Your task to perform on an android device: change timer sound Image 0: 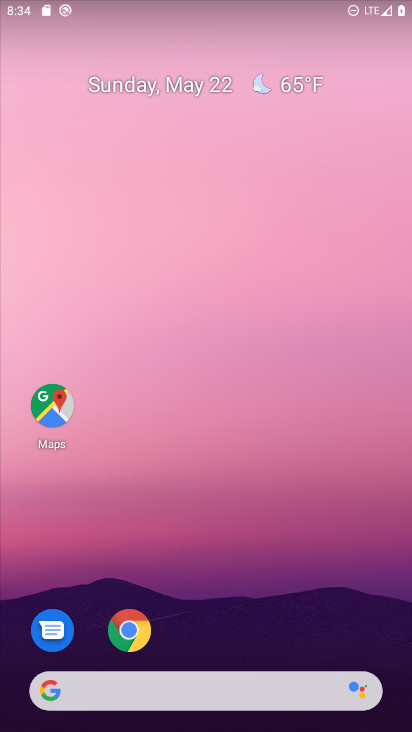
Step 0: press home button
Your task to perform on an android device: change timer sound Image 1: 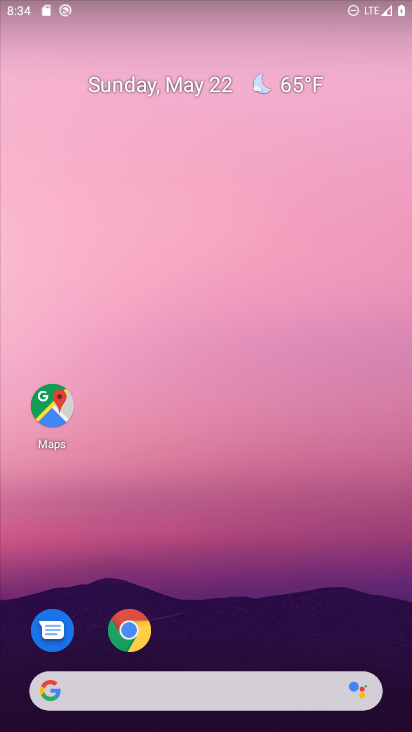
Step 1: drag from (181, 613) to (307, 274)
Your task to perform on an android device: change timer sound Image 2: 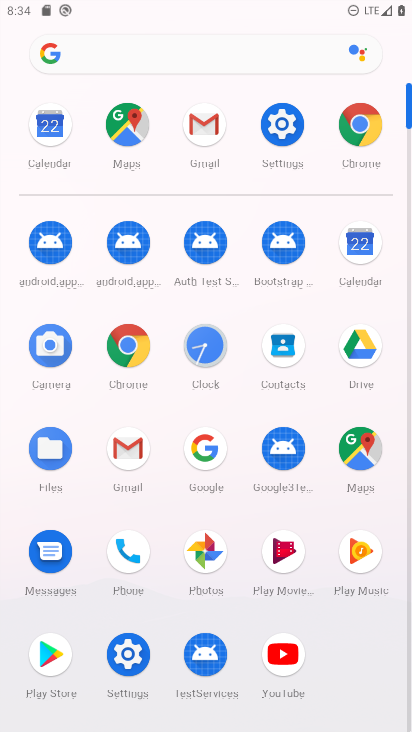
Step 2: click (210, 358)
Your task to perform on an android device: change timer sound Image 3: 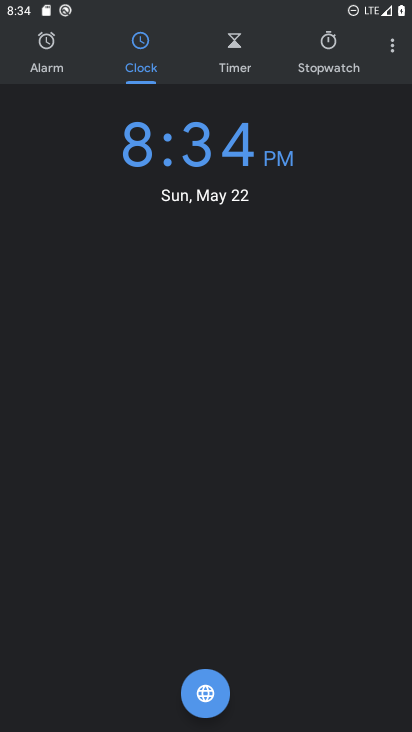
Step 3: click (283, 294)
Your task to perform on an android device: change timer sound Image 4: 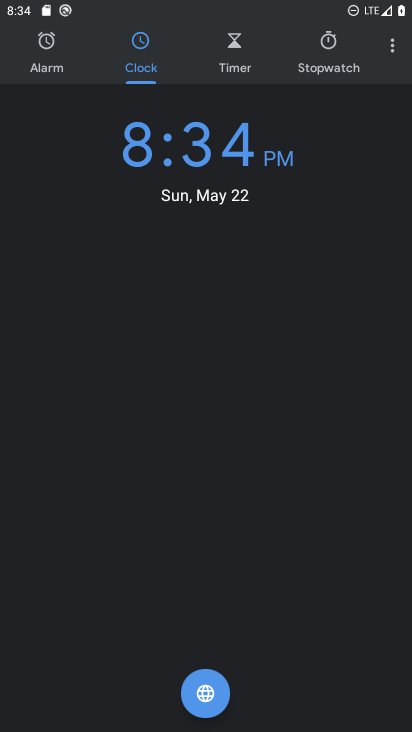
Step 4: click (393, 40)
Your task to perform on an android device: change timer sound Image 5: 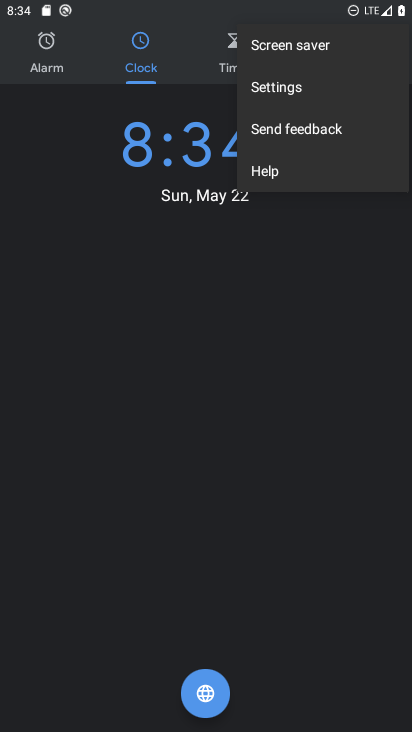
Step 5: click (320, 91)
Your task to perform on an android device: change timer sound Image 6: 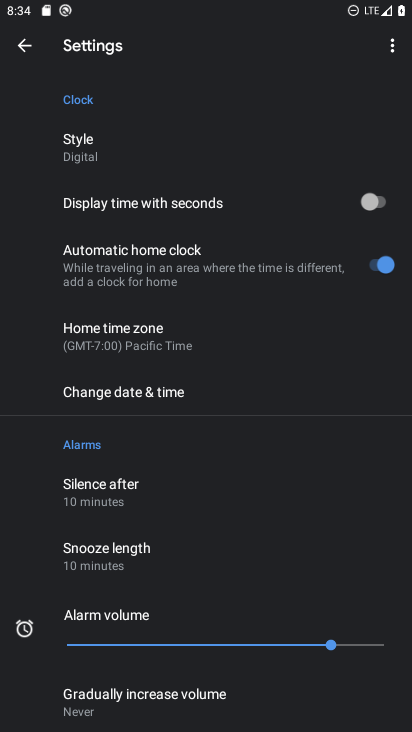
Step 6: drag from (164, 540) to (357, 176)
Your task to perform on an android device: change timer sound Image 7: 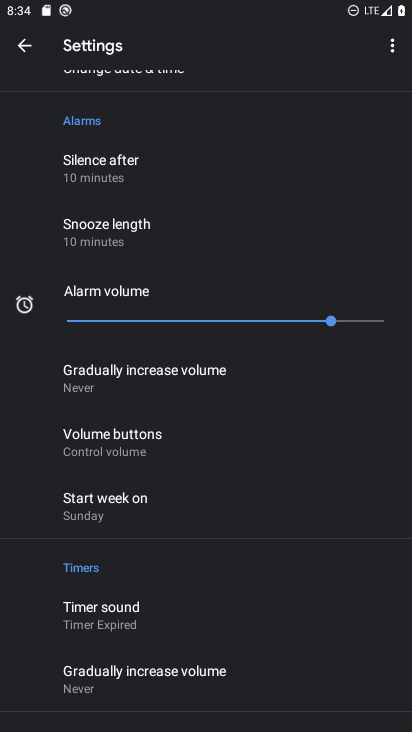
Step 7: click (122, 626)
Your task to perform on an android device: change timer sound Image 8: 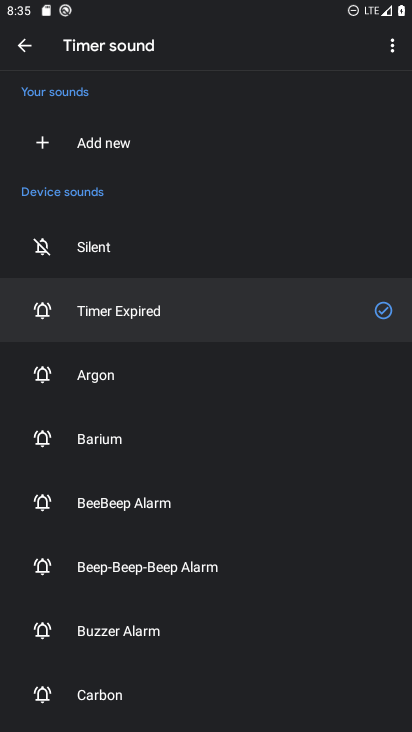
Step 8: click (123, 494)
Your task to perform on an android device: change timer sound Image 9: 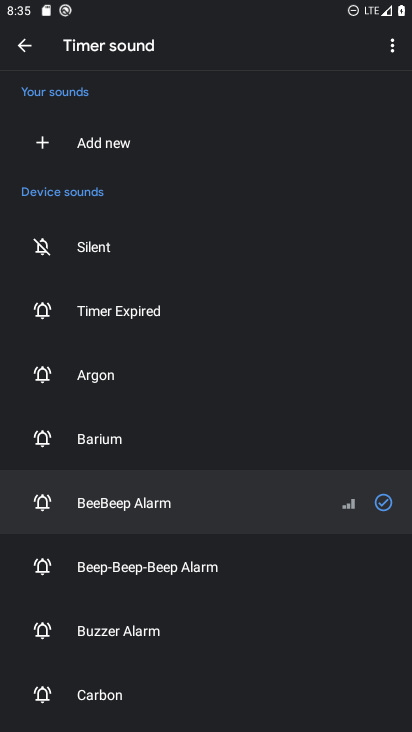
Step 9: task complete